Your task to perform on an android device: Go to sound settings Image 0: 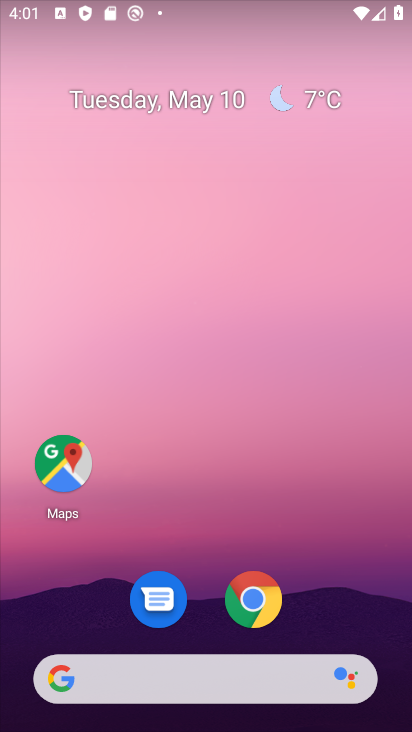
Step 0: drag from (243, 597) to (239, 140)
Your task to perform on an android device: Go to sound settings Image 1: 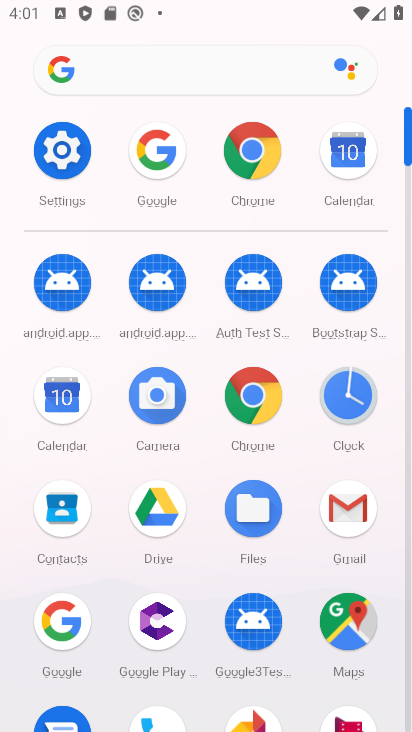
Step 1: click (88, 172)
Your task to perform on an android device: Go to sound settings Image 2: 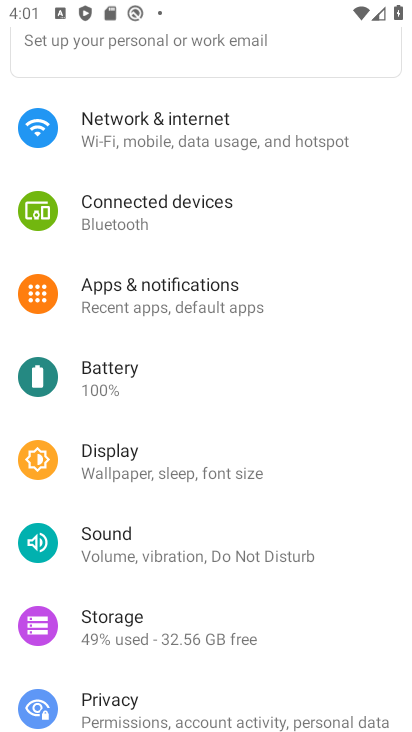
Step 2: click (186, 537)
Your task to perform on an android device: Go to sound settings Image 3: 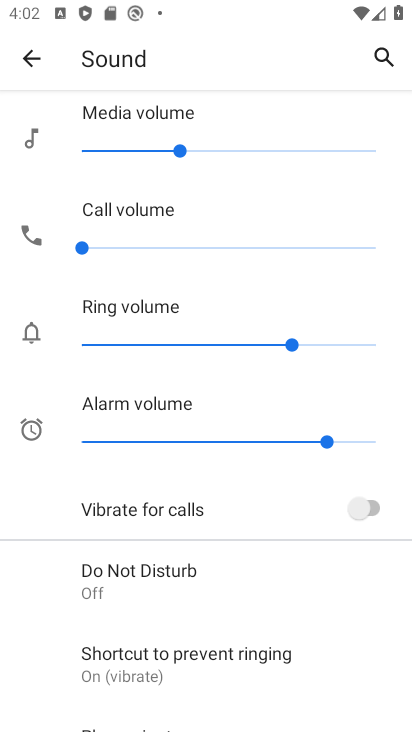
Step 3: task complete